Your task to perform on an android device: Open privacy settings Image 0: 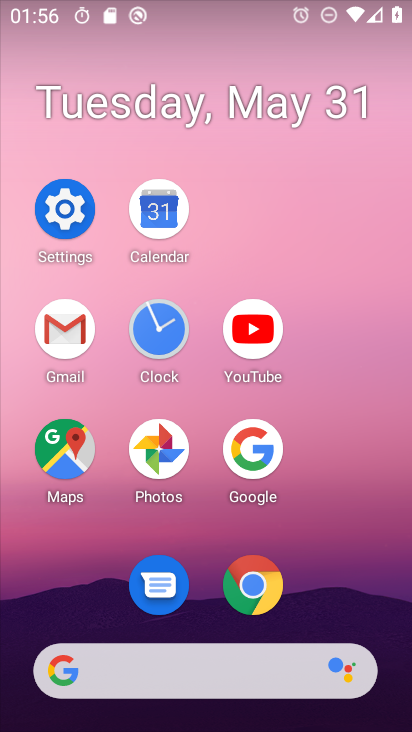
Step 0: click (48, 208)
Your task to perform on an android device: Open privacy settings Image 1: 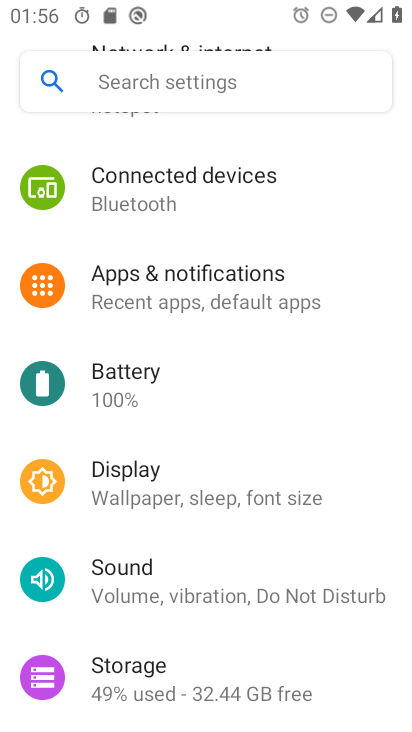
Step 1: drag from (226, 623) to (217, 254)
Your task to perform on an android device: Open privacy settings Image 2: 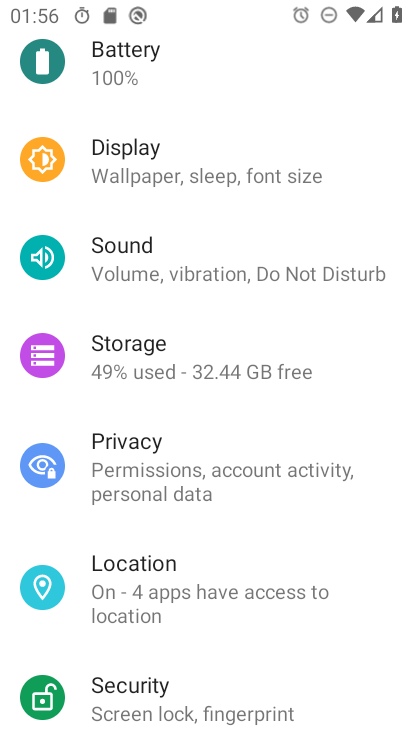
Step 2: click (190, 464)
Your task to perform on an android device: Open privacy settings Image 3: 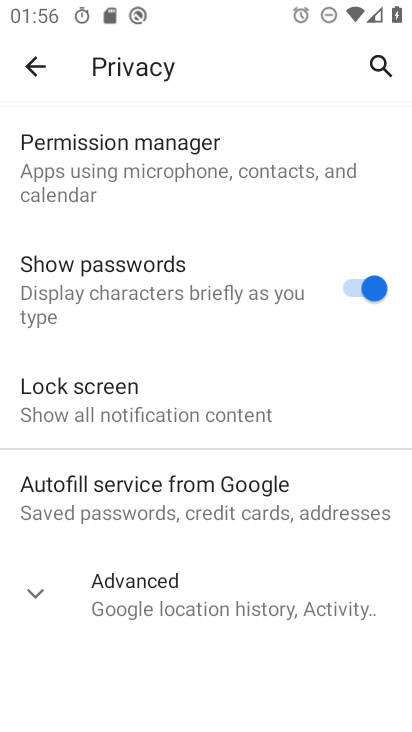
Step 3: task complete